Your task to perform on an android device: open sync settings in chrome Image 0: 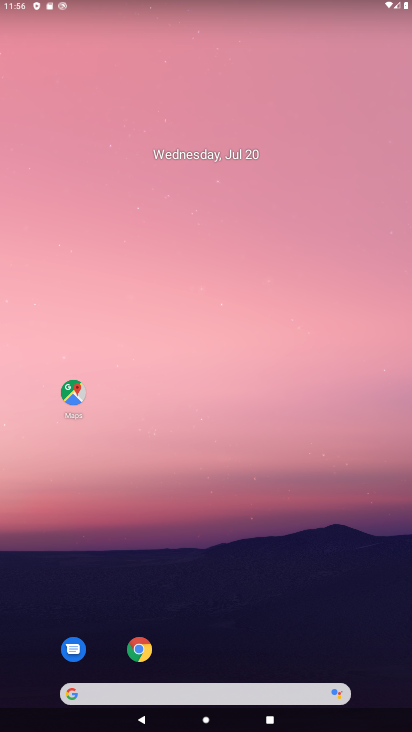
Step 0: click (132, 642)
Your task to perform on an android device: open sync settings in chrome Image 1: 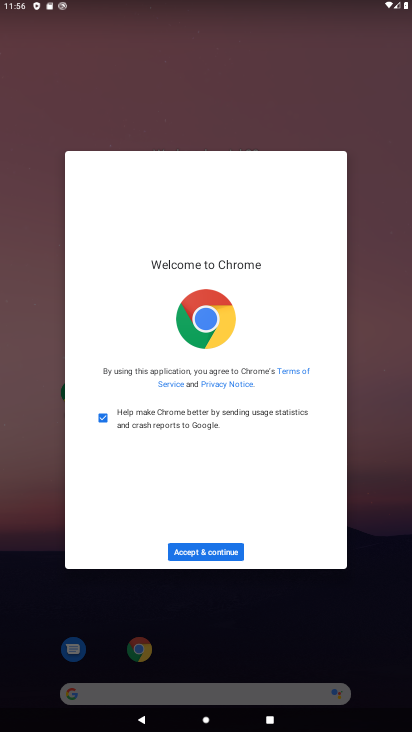
Step 1: click (197, 559)
Your task to perform on an android device: open sync settings in chrome Image 2: 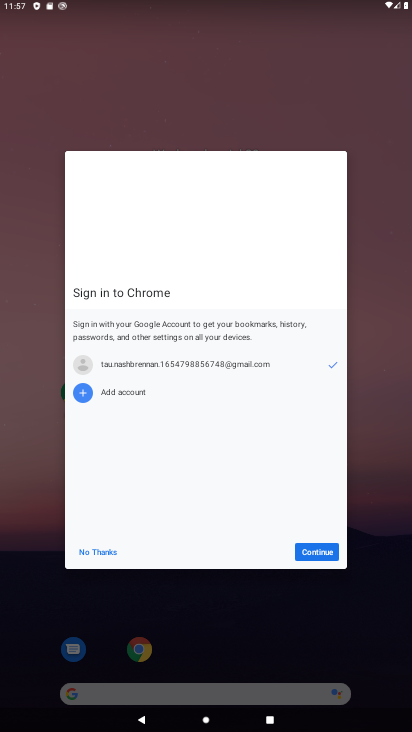
Step 2: click (300, 560)
Your task to perform on an android device: open sync settings in chrome Image 3: 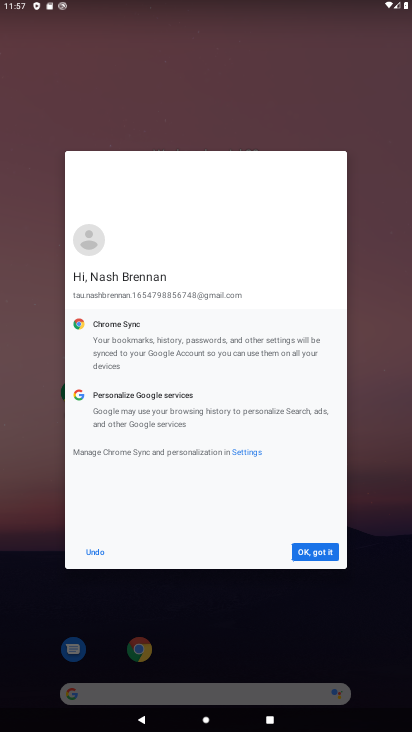
Step 3: click (300, 560)
Your task to perform on an android device: open sync settings in chrome Image 4: 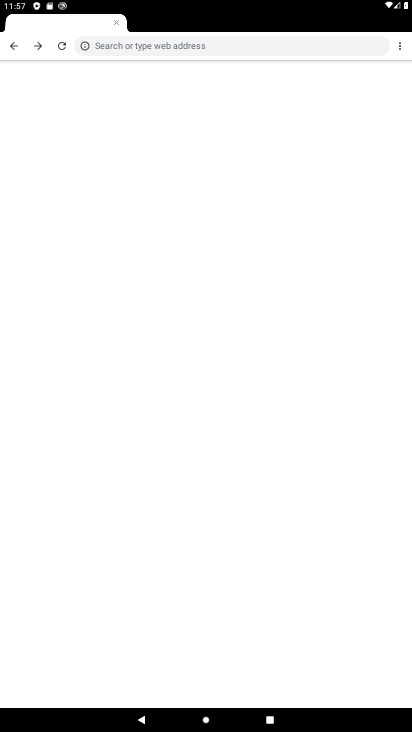
Step 4: task complete